Your task to perform on an android device: move an email to a new category in the gmail app Image 0: 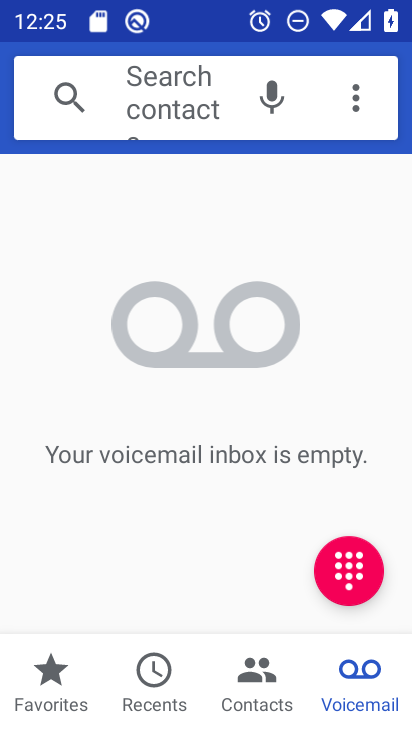
Step 0: press home button
Your task to perform on an android device: move an email to a new category in the gmail app Image 1: 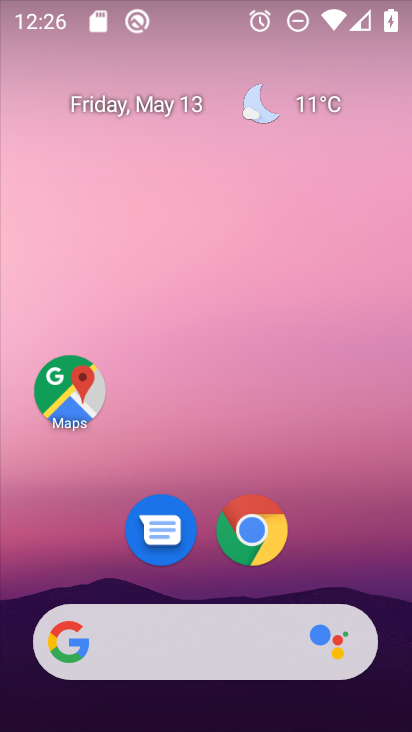
Step 1: drag from (191, 650) to (339, 95)
Your task to perform on an android device: move an email to a new category in the gmail app Image 2: 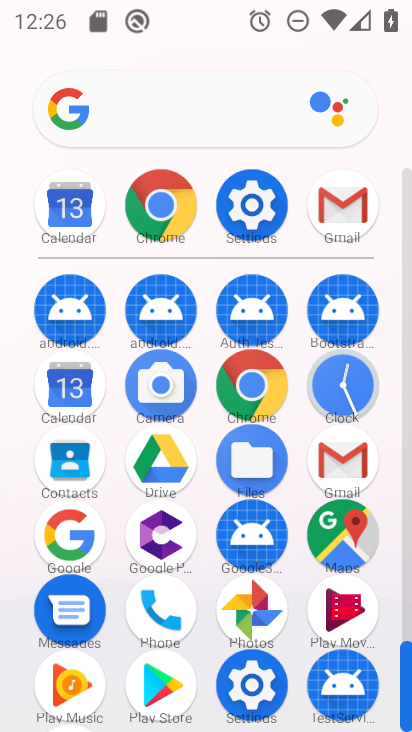
Step 2: click (339, 222)
Your task to perform on an android device: move an email to a new category in the gmail app Image 3: 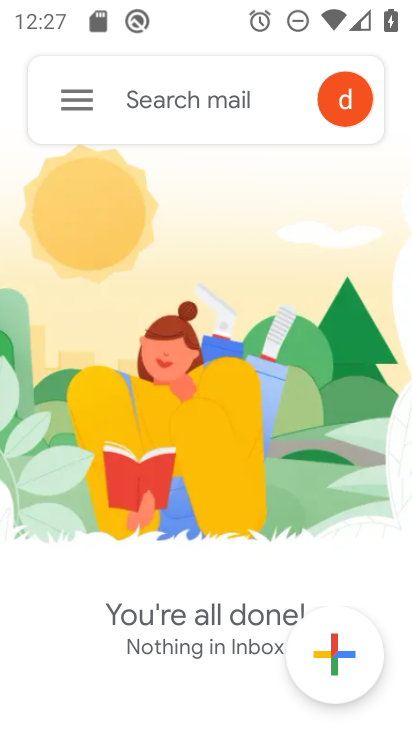
Step 3: task complete